Your task to perform on an android device: turn off location Image 0: 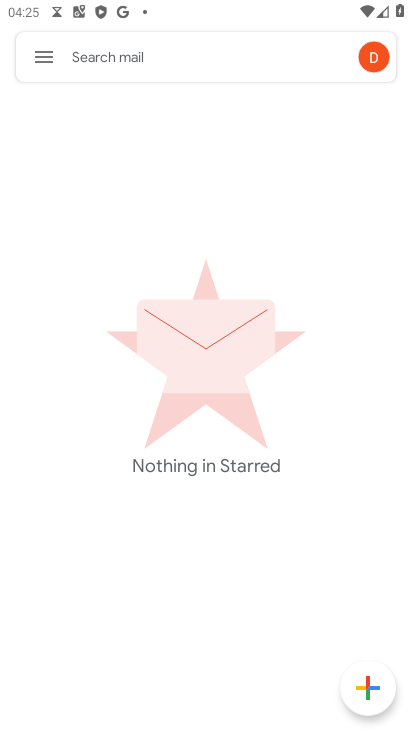
Step 0: press home button
Your task to perform on an android device: turn off location Image 1: 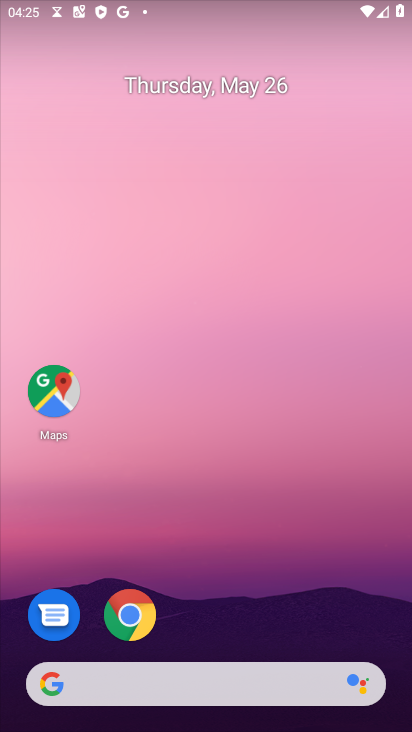
Step 1: drag from (192, 632) to (200, 50)
Your task to perform on an android device: turn off location Image 2: 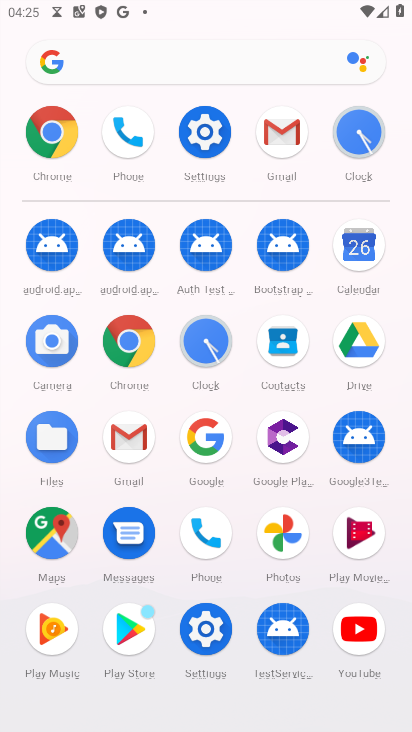
Step 2: click (200, 140)
Your task to perform on an android device: turn off location Image 3: 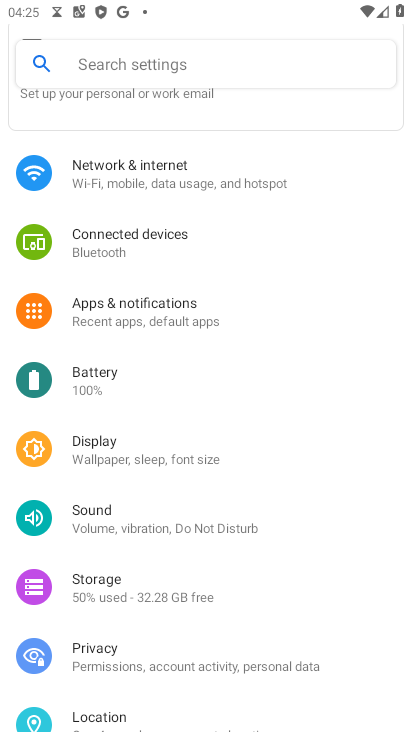
Step 3: drag from (112, 705) to (112, 423)
Your task to perform on an android device: turn off location Image 4: 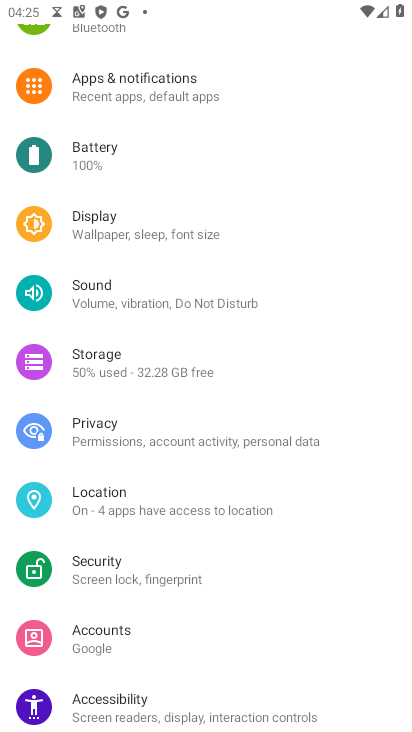
Step 4: click (104, 518)
Your task to perform on an android device: turn off location Image 5: 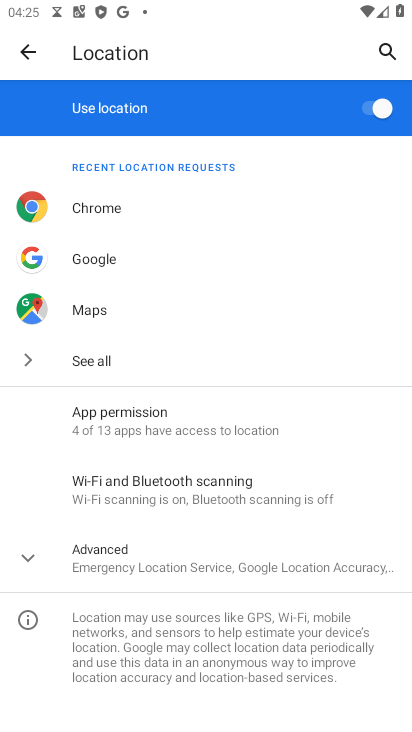
Step 5: click (372, 111)
Your task to perform on an android device: turn off location Image 6: 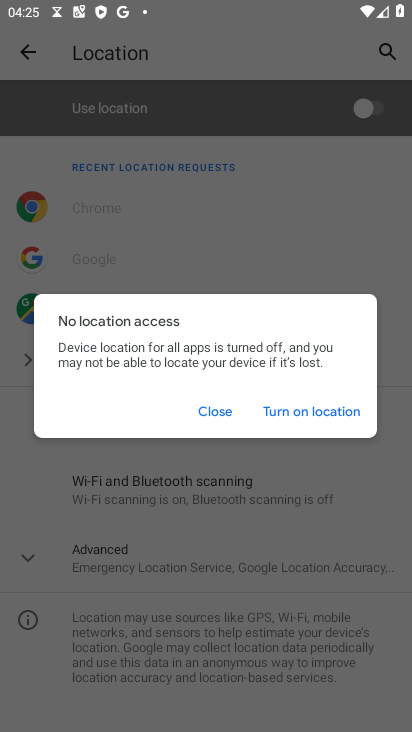
Step 6: click (217, 419)
Your task to perform on an android device: turn off location Image 7: 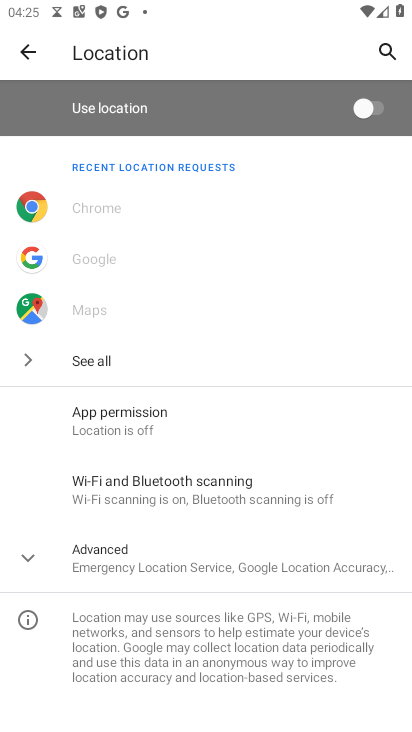
Step 7: task complete